Your task to perform on an android device: turn on bluetooth scan Image 0: 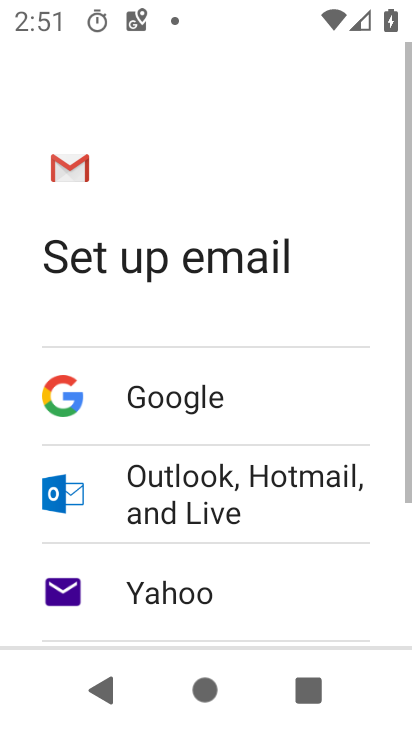
Step 0: press home button
Your task to perform on an android device: turn on bluetooth scan Image 1: 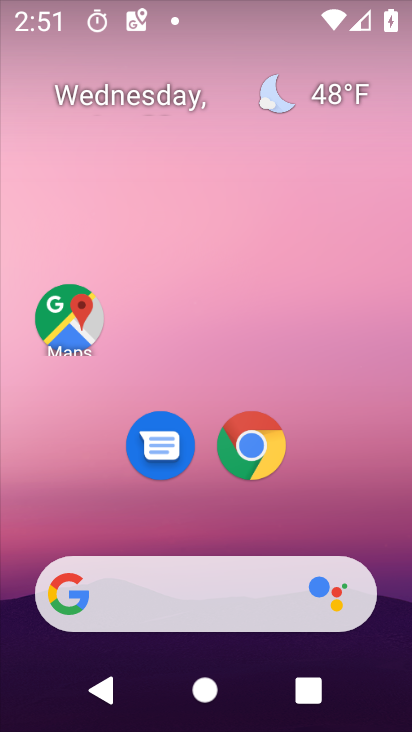
Step 1: drag from (359, 531) to (377, 14)
Your task to perform on an android device: turn on bluetooth scan Image 2: 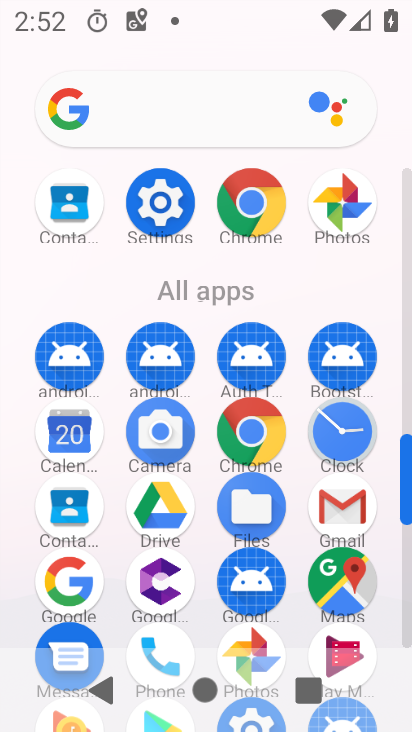
Step 2: click (150, 209)
Your task to perform on an android device: turn on bluetooth scan Image 3: 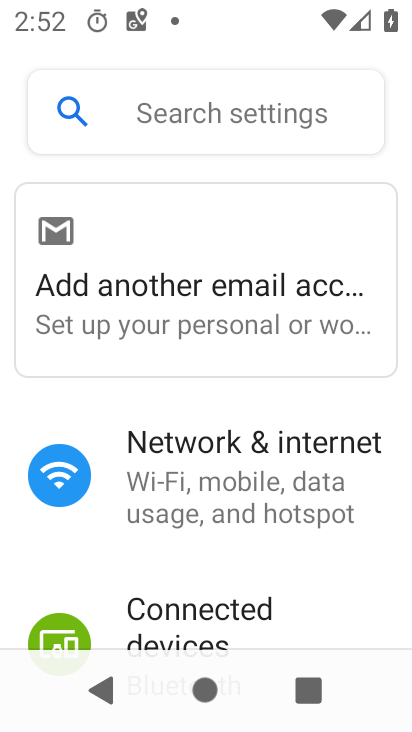
Step 3: drag from (344, 535) to (310, 22)
Your task to perform on an android device: turn on bluetooth scan Image 4: 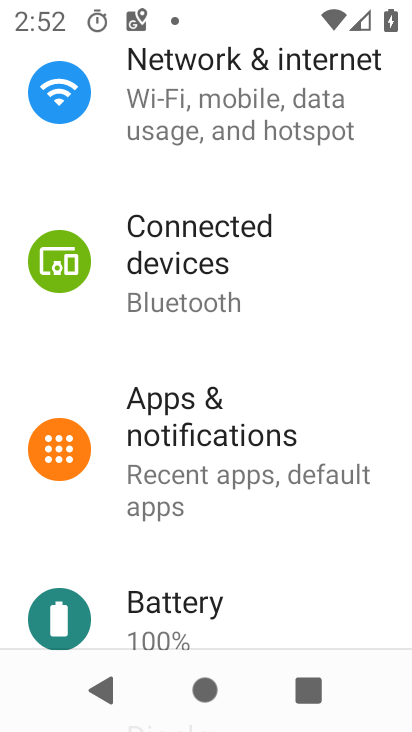
Step 4: drag from (388, 575) to (375, 178)
Your task to perform on an android device: turn on bluetooth scan Image 5: 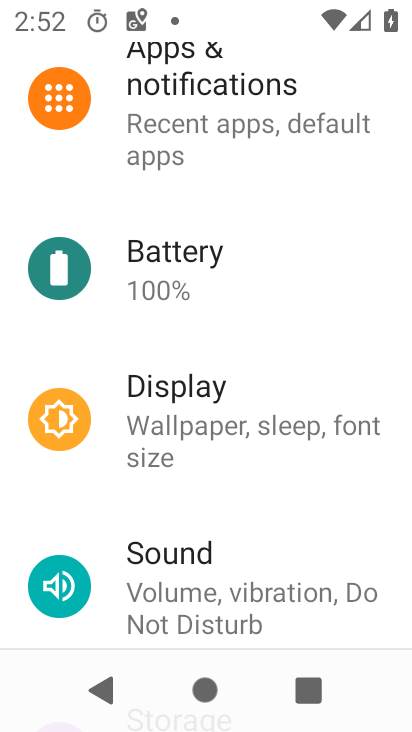
Step 5: drag from (364, 536) to (366, 286)
Your task to perform on an android device: turn on bluetooth scan Image 6: 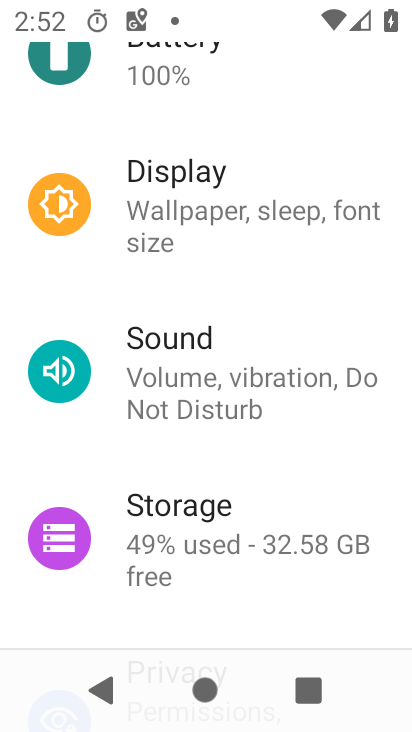
Step 6: drag from (371, 465) to (362, 228)
Your task to perform on an android device: turn on bluetooth scan Image 7: 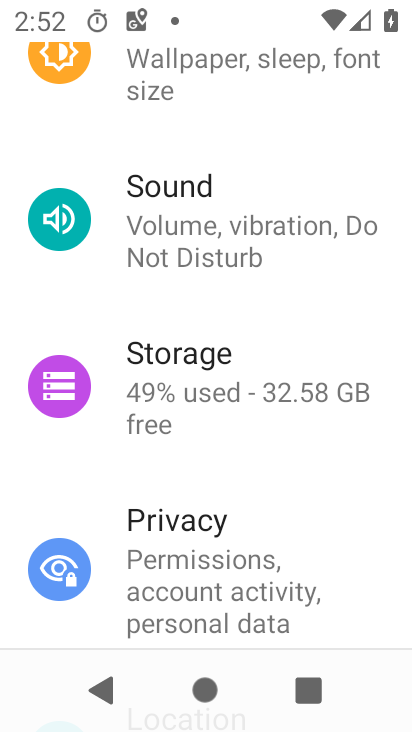
Step 7: drag from (363, 488) to (331, 212)
Your task to perform on an android device: turn on bluetooth scan Image 8: 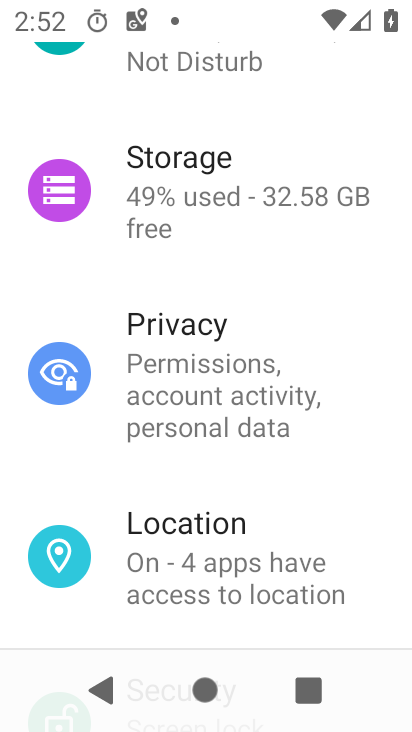
Step 8: click (191, 551)
Your task to perform on an android device: turn on bluetooth scan Image 9: 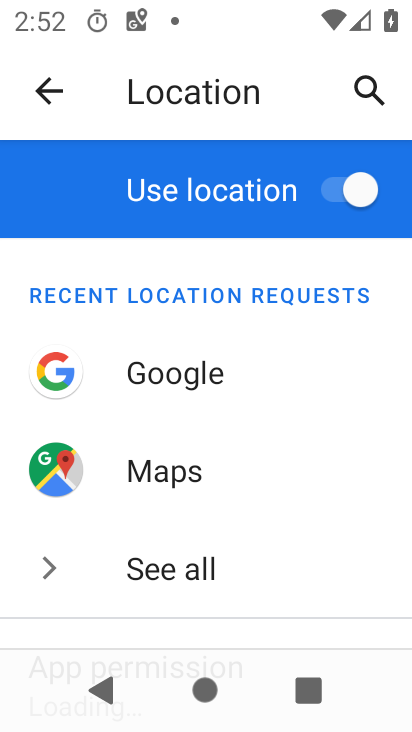
Step 9: drag from (324, 562) to (327, 178)
Your task to perform on an android device: turn on bluetooth scan Image 10: 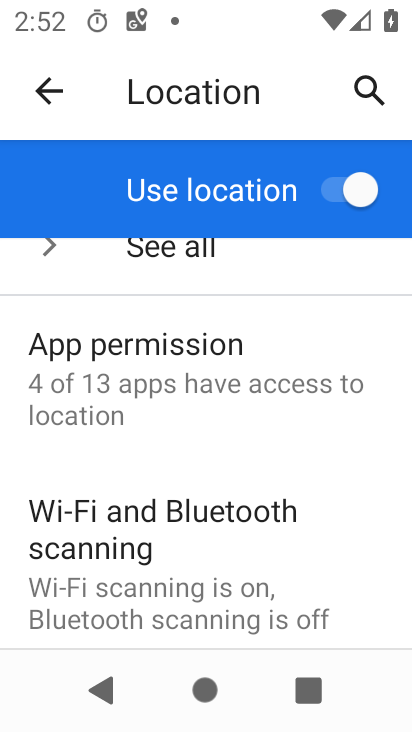
Step 10: click (168, 557)
Your task to perform on an android device: turn on bluetooth scan Image 11: 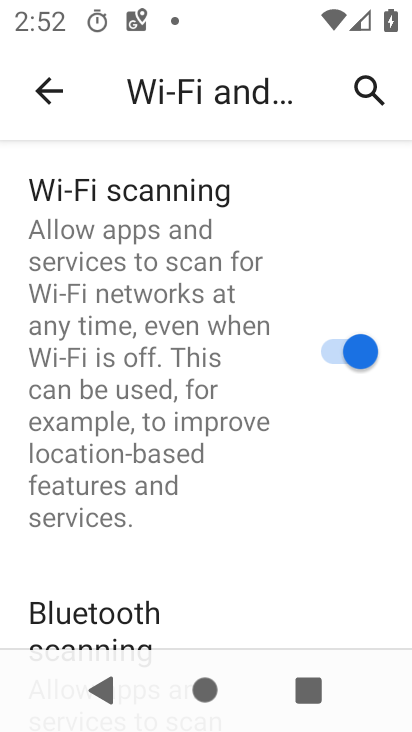
Step 11: drag from (168, 557) to (174, 249)
Your task to perform on an android device: turn on bluetooth scan Image 12: 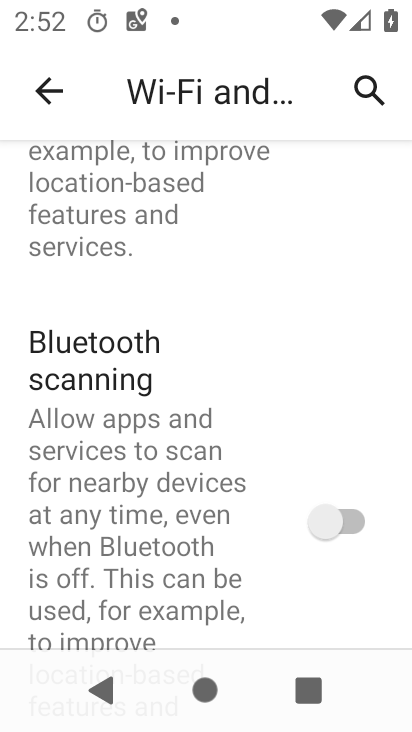
Step 12: click (328, 527)
Your task to perform on an android device: turn on bluetooth scan Image 13: 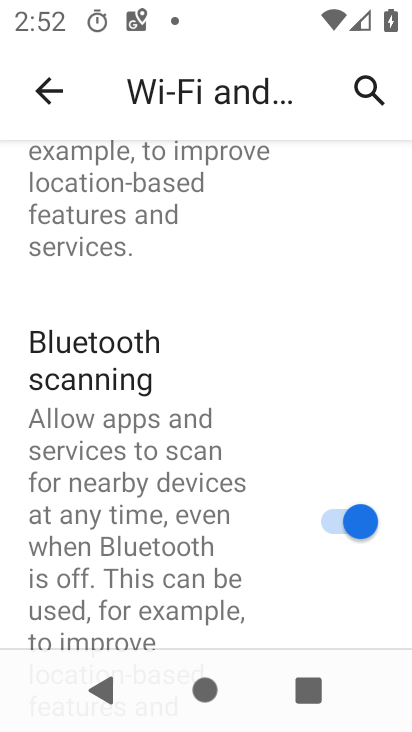
Step 13: task complete